Your task to perform on an android device: check the backup settings in the google photos Image 0: 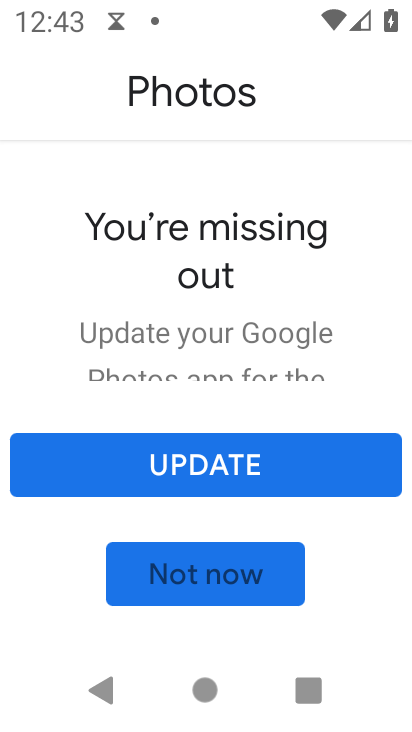
Step 0: press home button
Your task to perform on an android device: check the backup settings in the google photos Image 1: 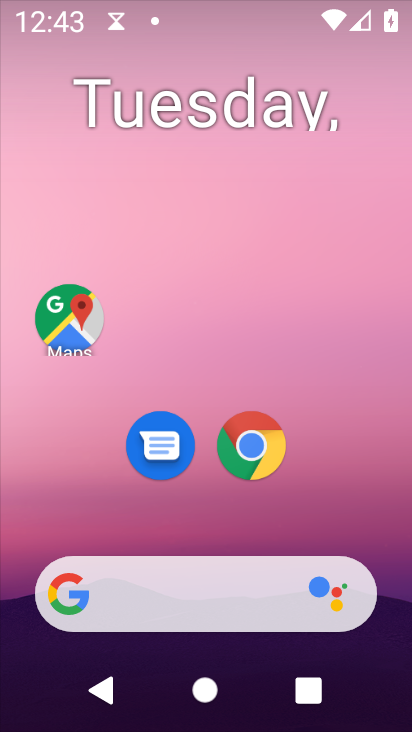
Step 1: drag from (345, 644) to (359, 164)
Your task to perform on an android device: check the backup settings in the google photos Image 2: 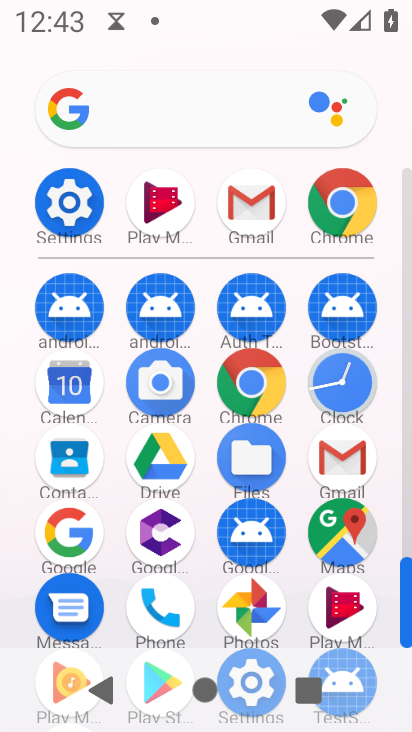
Step 2: click (317, 606)
Your task to perform on an android device: check the backup settings in the google photos Image 3: 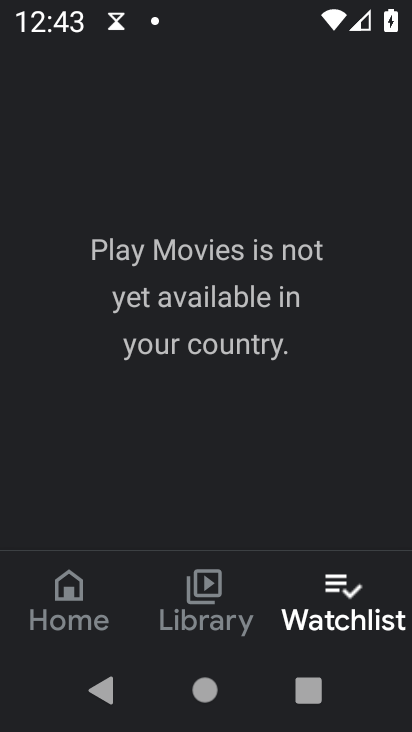
Step 3: press back button
Your task to perform on an android device: check the backup settings in the google photos Image 4: 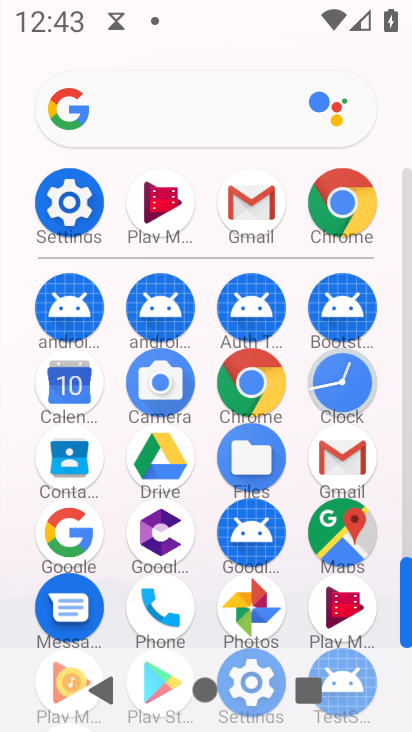
Step 4: click (253, 612)
Your task to perform on an android device: check the backup settings in the google photos Image 5: 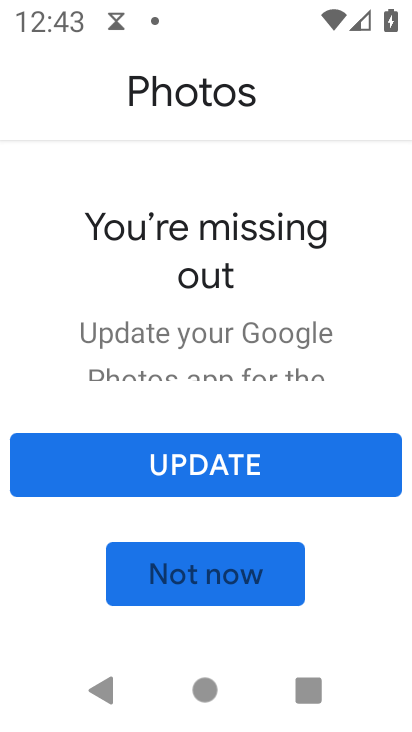
Step 5: click (285, 455)
Your task to perform on an android device: check the backup settings in the google photos Image 6: 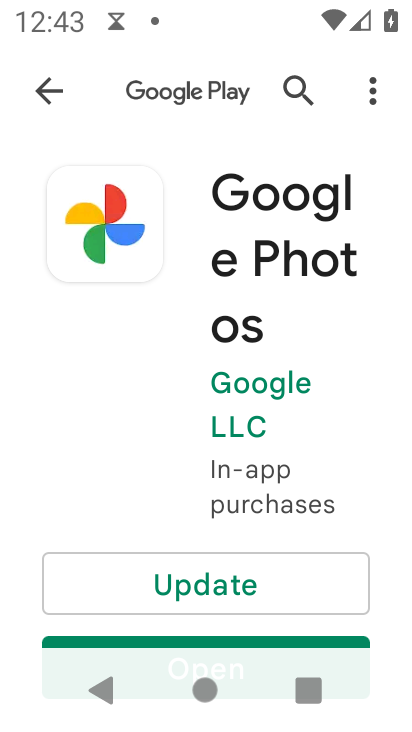
Step 6: drag from (242, 580) to (304, 580)
Your task to perform on an android device: check the backup settings in the google photos Image 7: 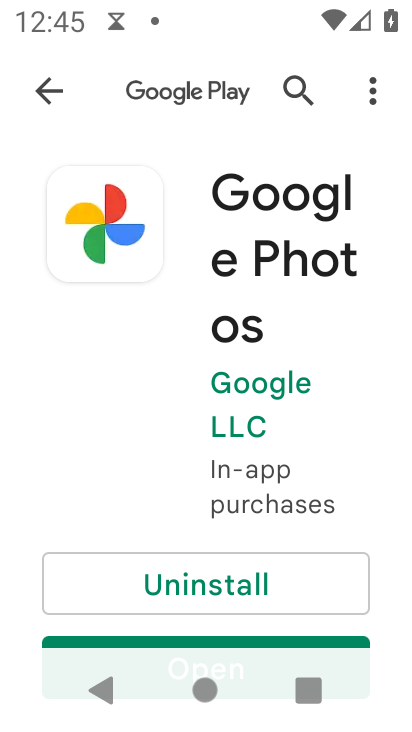
Step 7: drag from (227, 570) to (318, 54)
Your task to perform on an android device: check the backup settings in the google photos Image 8: 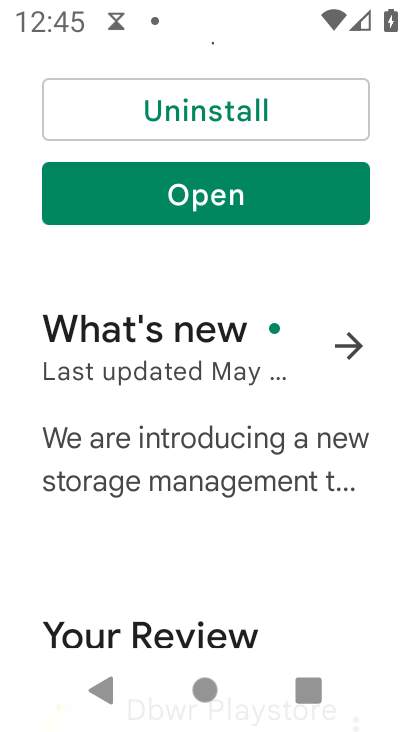
Step 8: click (245, 195)
Your task to perform on an android device: check the backup settings in the google photos Image 9: 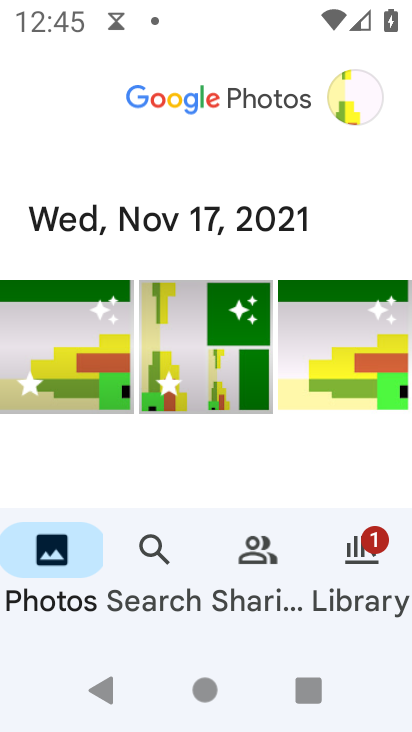
Step 9: click (370, 102)
Your task to perform on an android device: check the backup settings in the google photos Image 10: 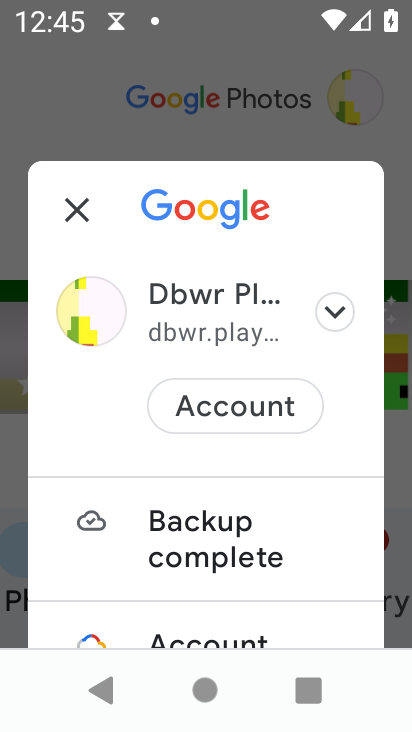
Step 10: drag from (261, 593) to (299, 395)
Your task to perform on an android device: check the backup settings in the google photos Image 11: 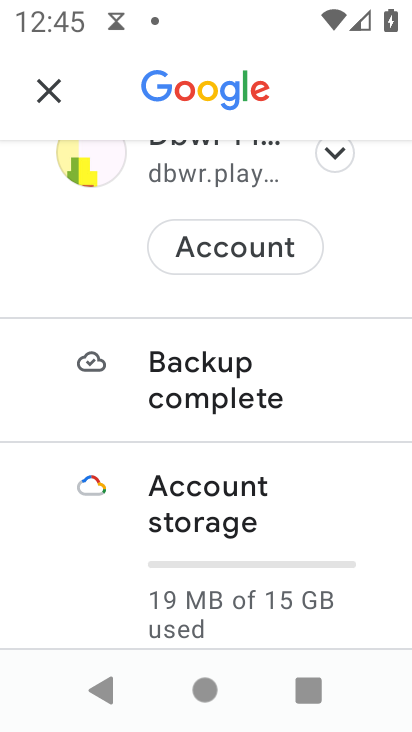
Step 11: drag from (283, 576) to (356, 34)
Your task to perform on an android device: check the backup settings in the google photos Image 12: 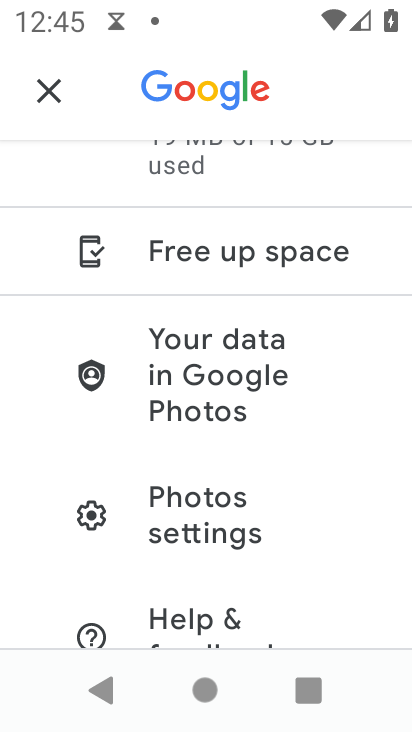
Step 12: click (243, 511)
Your task to perform on an android device: check the backup settings in the google photos Image 13: 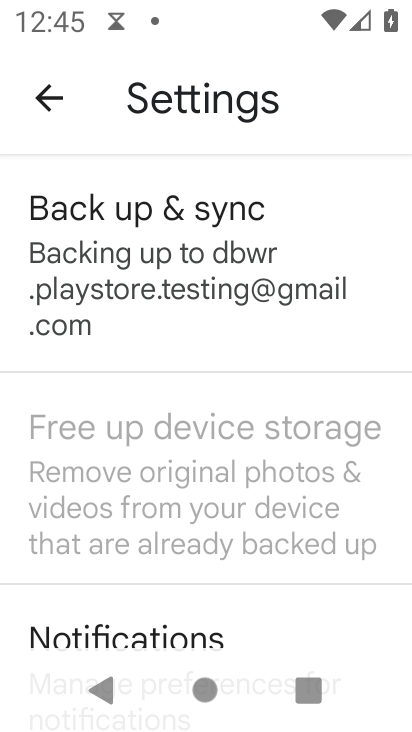
Step 13: click (258, 311)
Your task to perform on an android device: check the backup settings in the google photos Image 14: 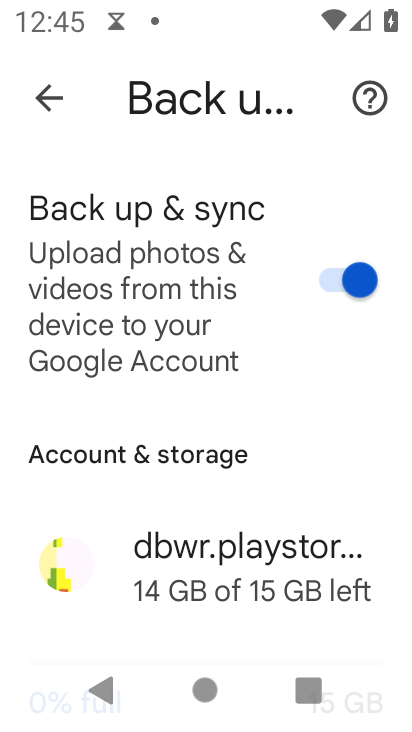
Step 14: task complete